Your task to perform on an android device: Turn off the flashlight Image 0: 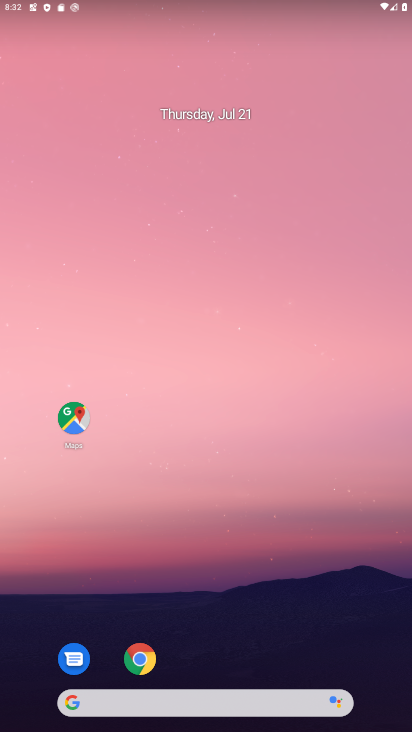
Step 0: drag from (211, 659) to (221, 68)
Your task to perform on an android device: Turn off the flashlight Image 1: 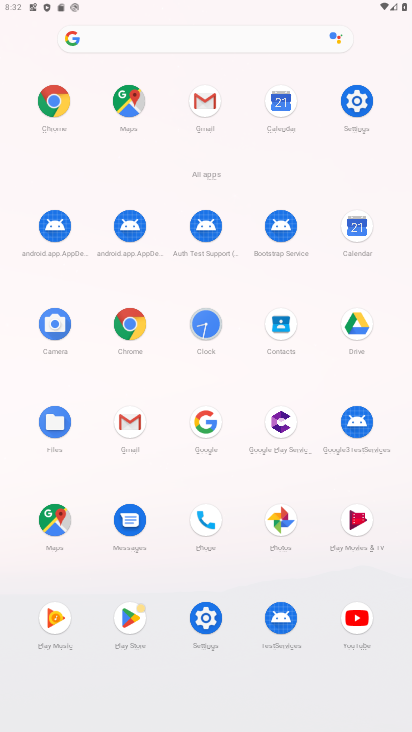
Step 1: click (353, 98)
Your task to perform on an android device: Turn off the flashlight Image 2: 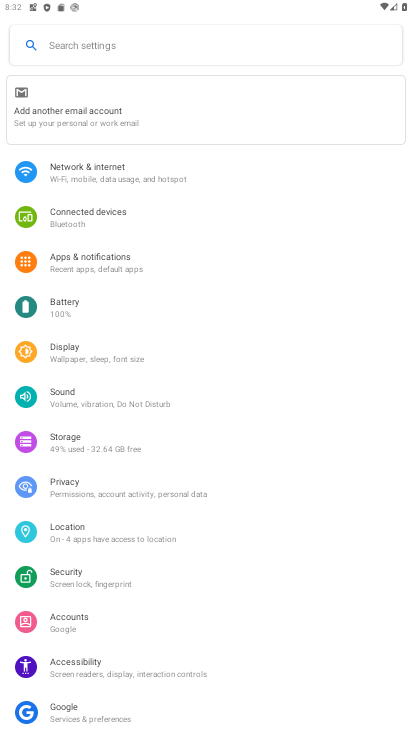
Step 2: click (102, 48)
Your task to perform on an android device: Turn off the flashlight Image 3: 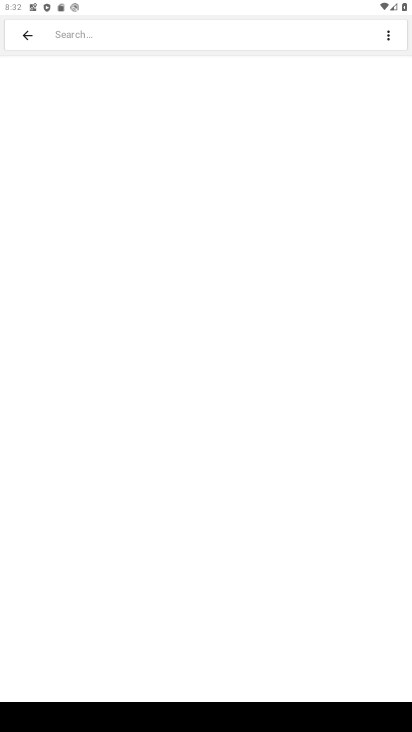
Step 3: type "flashlight"
Your task to perform on an android device: Turn off the flashlight Image 4: 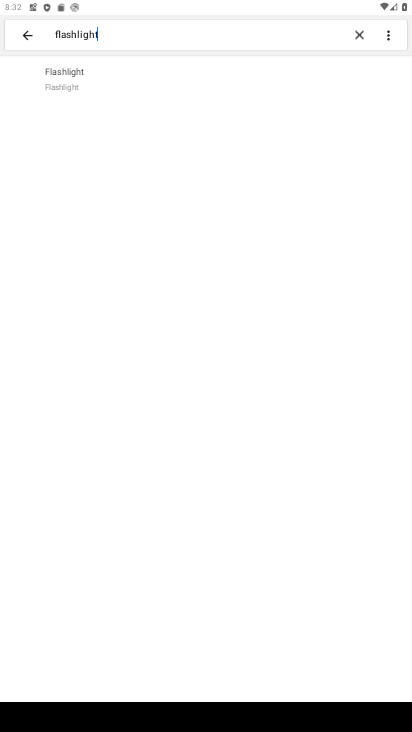
Step 4: click (89, 76)
Your task to perform on an android device: Turn off the flashlight Image 5: 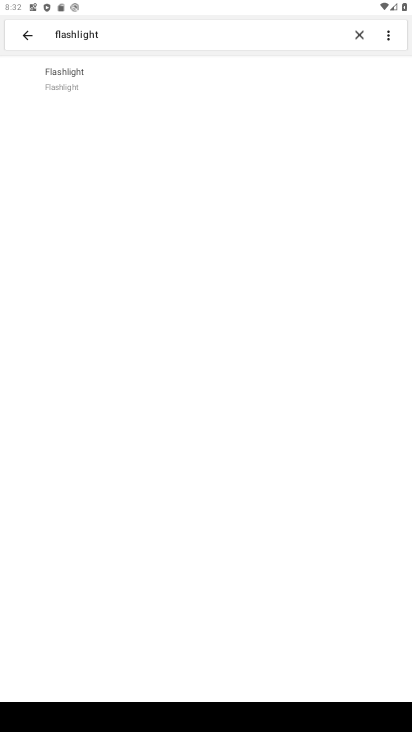
Step 5: task complete